Your task to perform on an android device: Search for "macbook pro 13 inch" on bestbuy.com, select the first entry, and add it to the cart. Image 0: 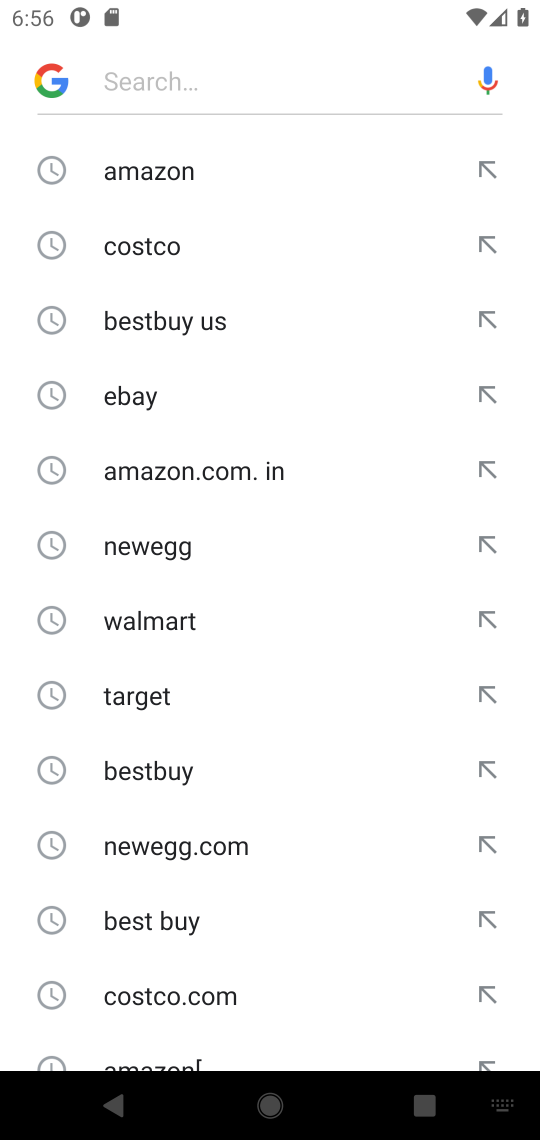
Step 0: click (152, 779)
Your task to perform on an android device: Search for "macbook pro 13 inch" on bestbuy.com, select the first entry, and add it to the cart. Image 1: 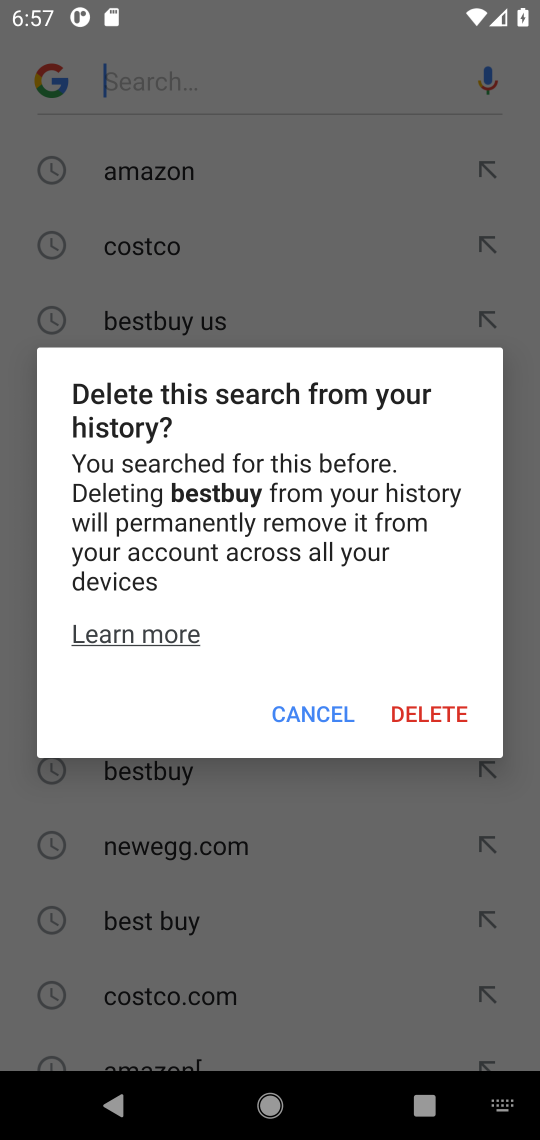
Step 1: click (340, 705)
Your task to perform on an android device: Search for "macbook pro 13 inch" on bestbuy.com, select the first entry, and add it to the cart. Image 2: 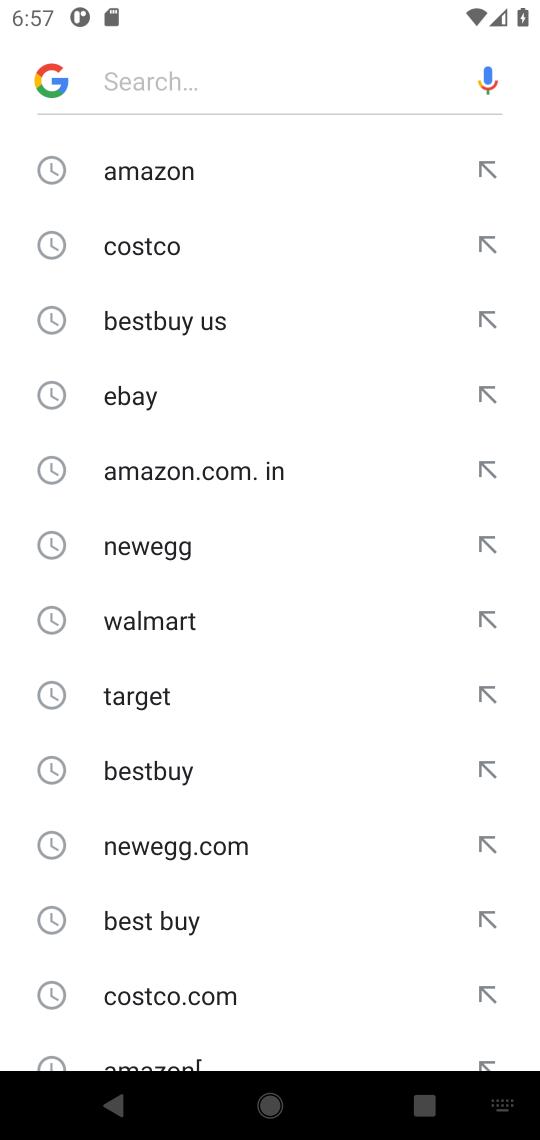
Step 2: click (216, 82)
Your task to perform on an android device: Search for "macbook pro 13 inch" on bestbuy.com, select the first entry, and add it to the cart. Image 3: 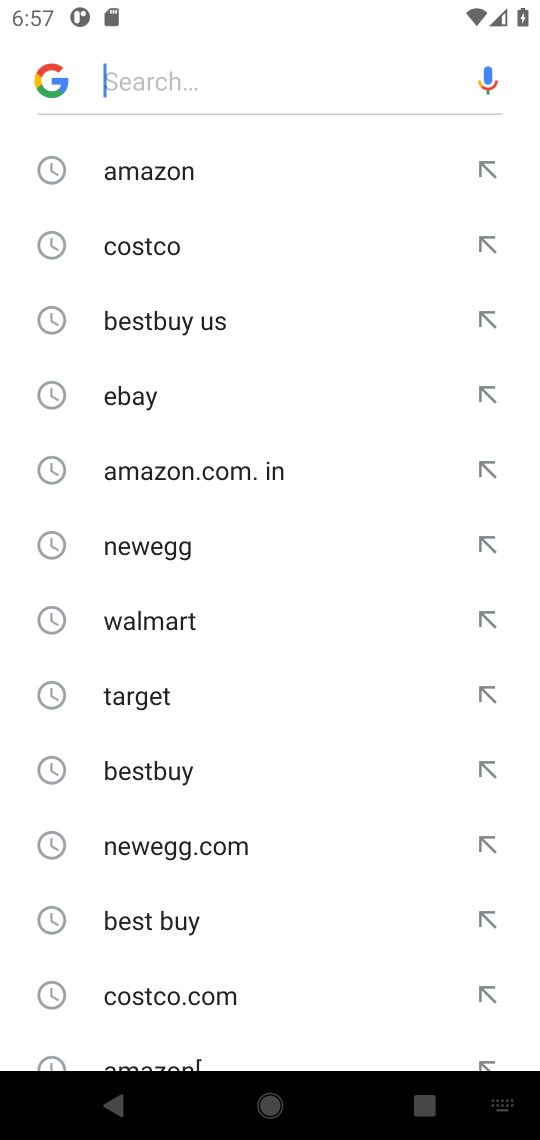
Step 3: type "bestbuy "
Your task to perform on an android device: Search for "macbook pro 13 inch" on bestbuy.com, select the first entry, and add it to the cart. Image 4: 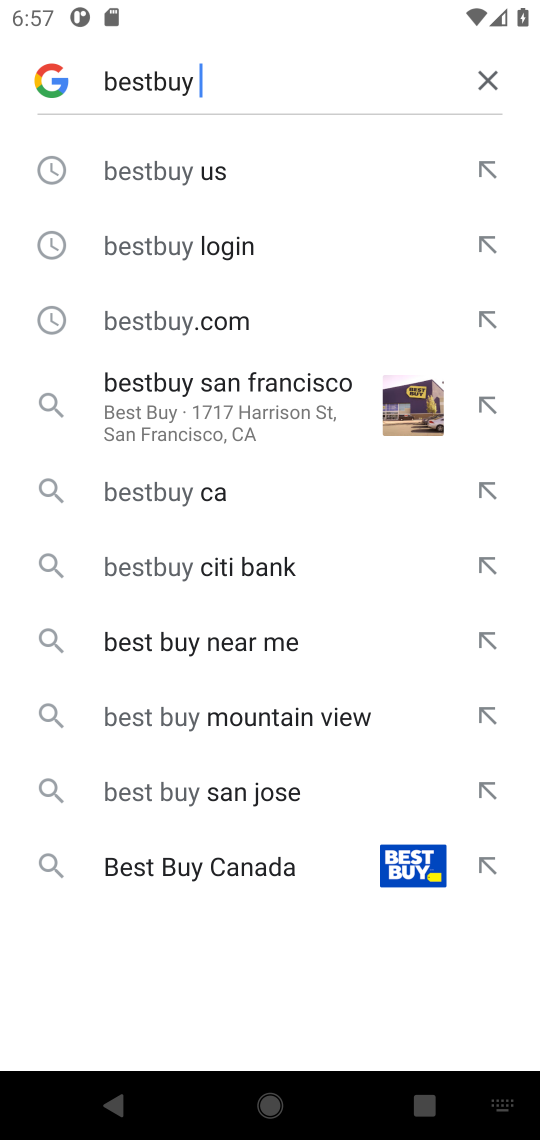
Step 4: click (264, 180)
Your task to perform on an android device: Search for "macbook pro 13 inch" on bestbuy.com, select the first entry, and add it to the cart. Image 5: 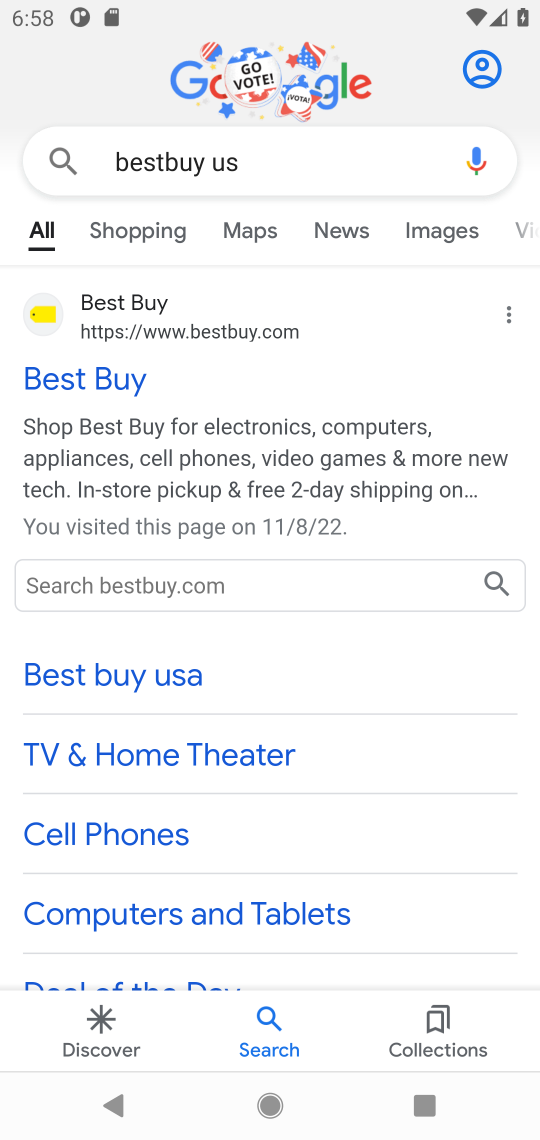
Step 5: click (39, 314)
Your task to perform on an android device: Search for "macbook pro 13 inch" on bestbuy.com, select the first entry, and add it to the cart. Image 6: 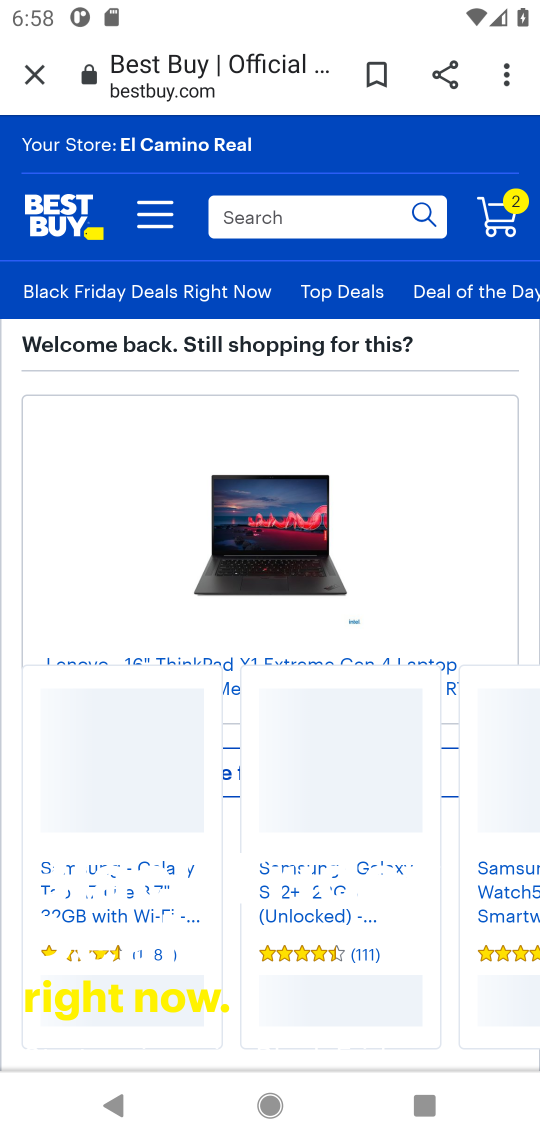
Step 6: click (245, 207)
Your task to perform on an android device: Search for "macbook pro 13 inch" on bestbuy.com, select the first entry, and add it to the cart. Image 7: 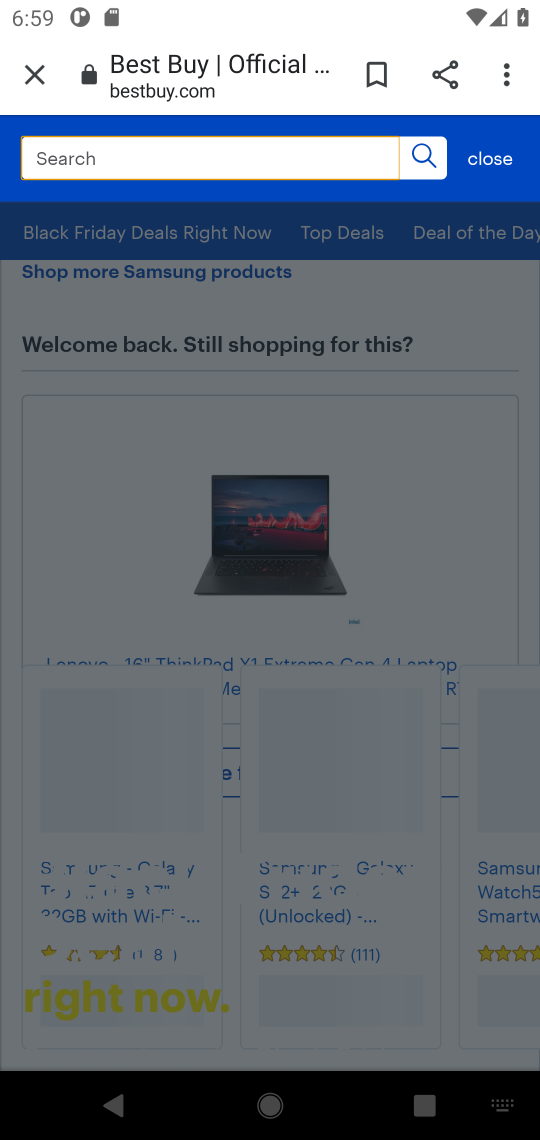
Step 7: click (152, 155)
Your task to perform on an android device: Search for "macbook pro 13 inch" on bestbuy.com, select the first entry, and add it to the cart. Image 8: 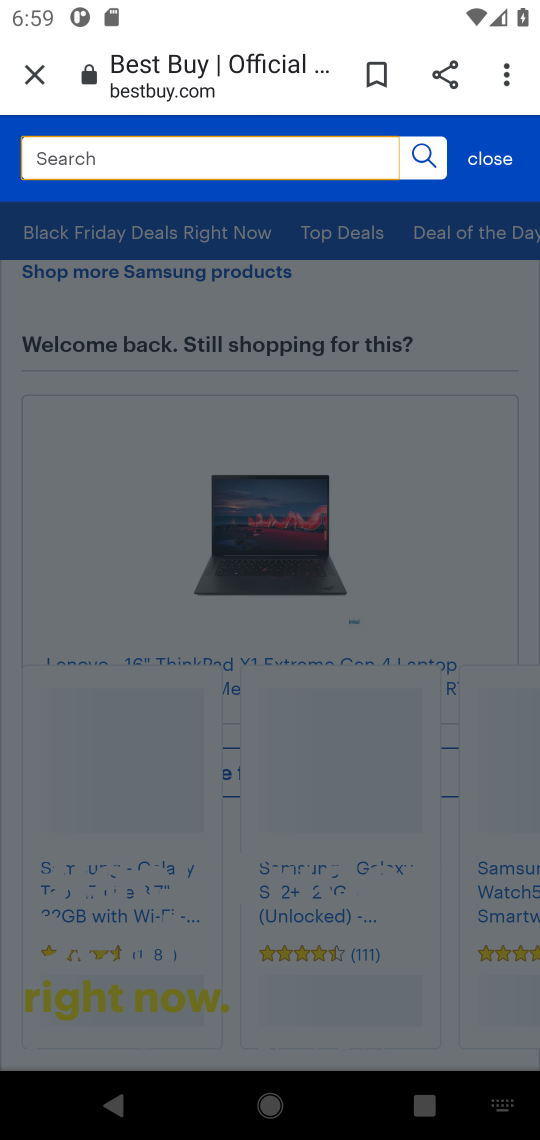
Step 8: type "macbook pro 13 inch "
Your task to perform on an android device: Search for "macbook pro 13 inch" on bestbuy.com, select the first entry, and add it to the cart. Image 9: 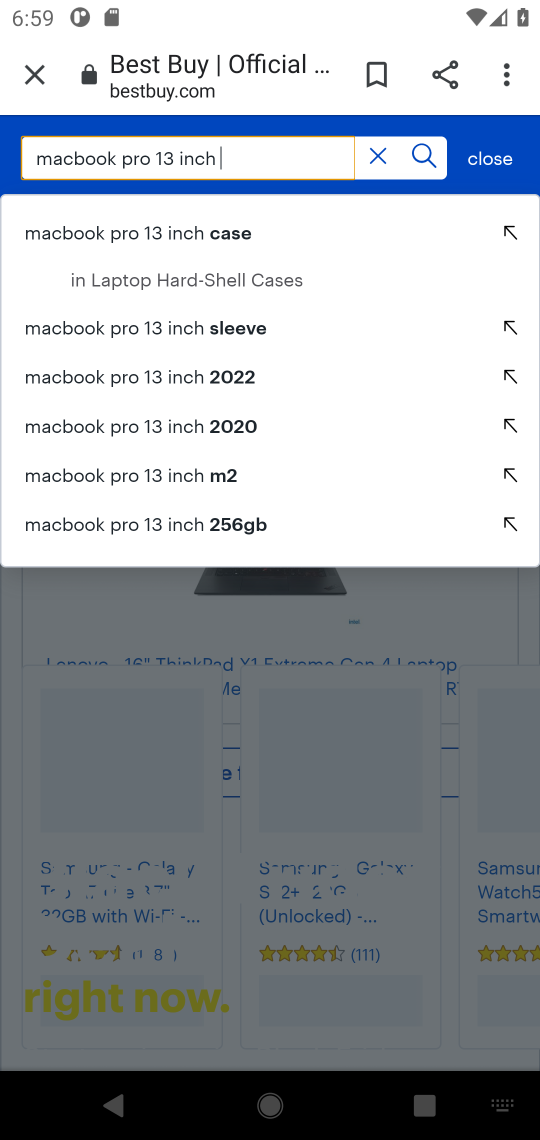
Step 9: click (174, 375)
Your task to perform on an android device: Search for "macbook pro 13 inch" on bestbuy.com, select the first entry, and add it to the cart. Image 10: 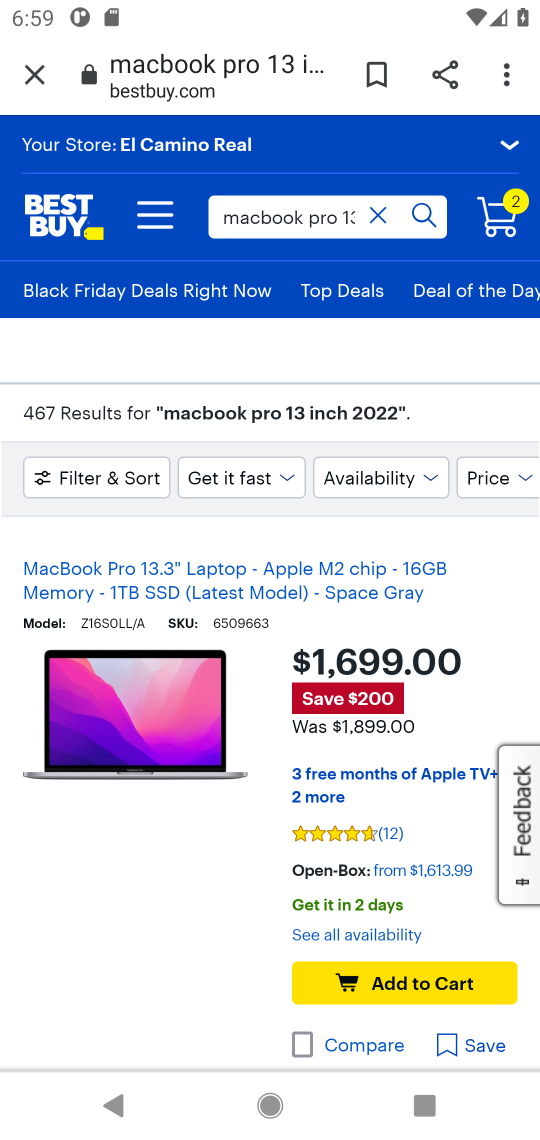
Step 10: click (447, 981)
Your task to perform on an android device: Search for "macbook pro 13 inch" on bestbuy.com, select the first entry, and add it to the cart. Image 11: 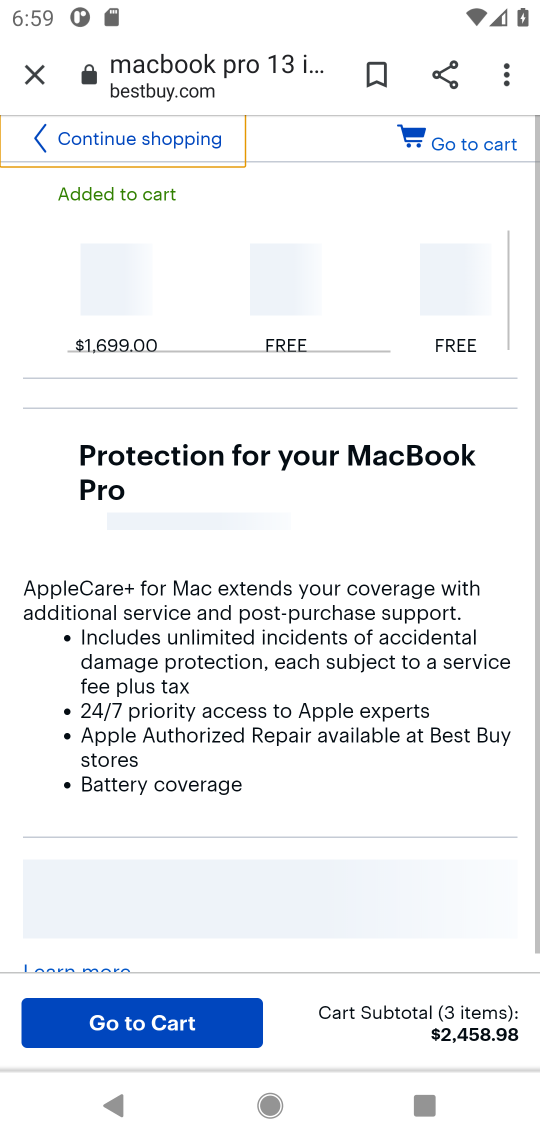
Step 11: task complete